Your task to perform on an android device: find which apps use the phone's location Image 0: 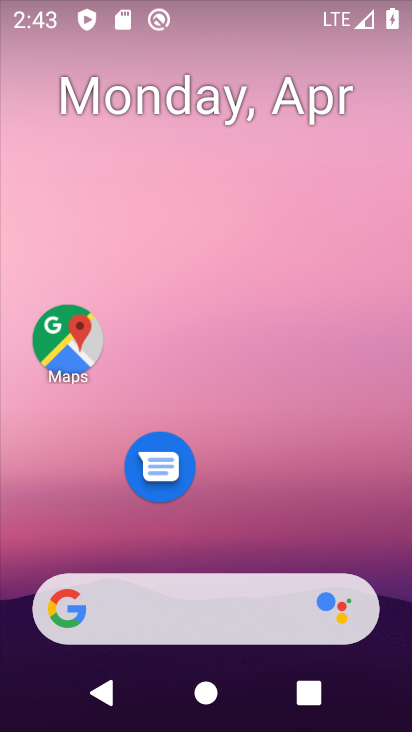
Step 0: drag from (311, 531) to (314, 51)
Your task to perform on an android device: find which apps use the phone's location Image 1: 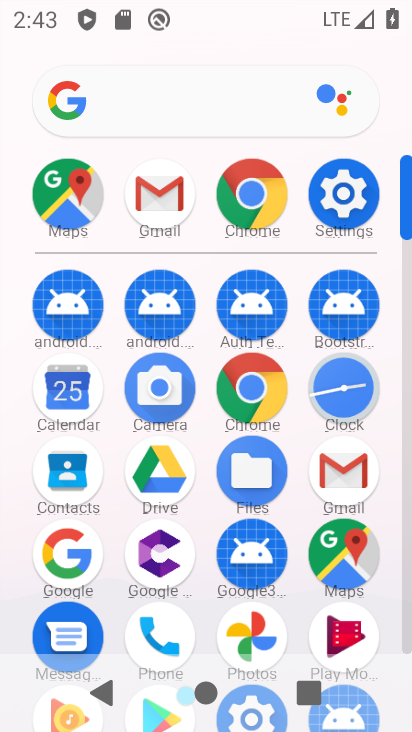
Step 1: click (339, 206)
Your task to perform on an android device: find which apps use the phone's location Image 2: 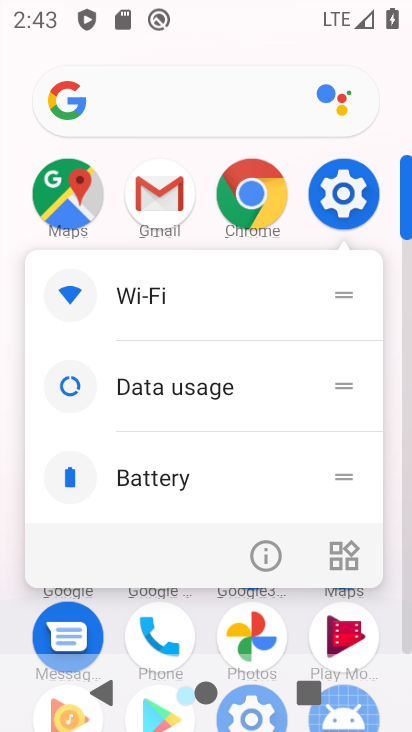
Step 2: click (340, 206)
Your task to perform on an android device: find which apps use the phone's location Image 3: 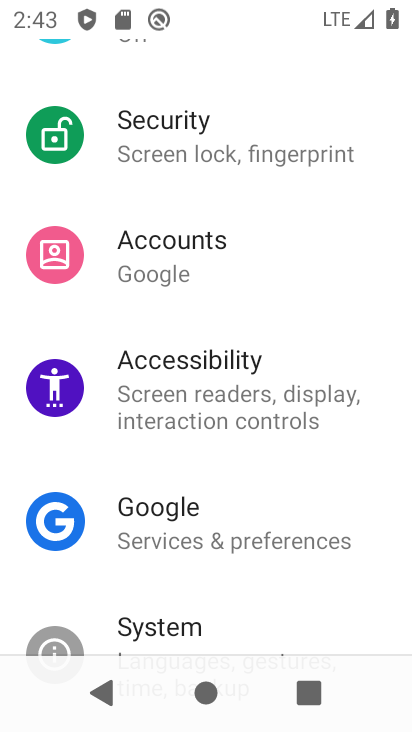
Step 3: drag from (276, 295) to (314, 500)
Your task to perform on an android device: find which apps use the phone's location Image 4: 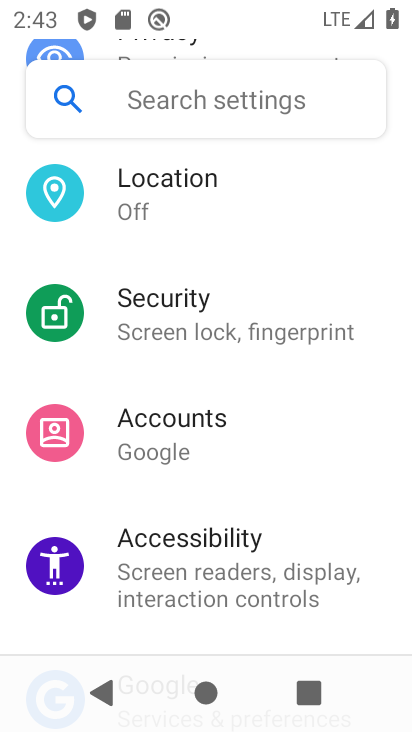
Step 4: drag from (271, 355) to (298, 499)
Your task to perform on an android device: find which apps use the phone's location Image 5: 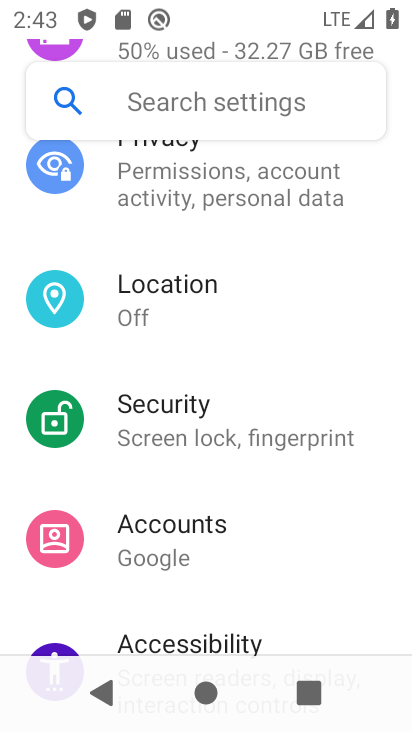
Step 5: click (239, 318)
Your task to perform on an android device: find which apps use the phone's location Image 6: 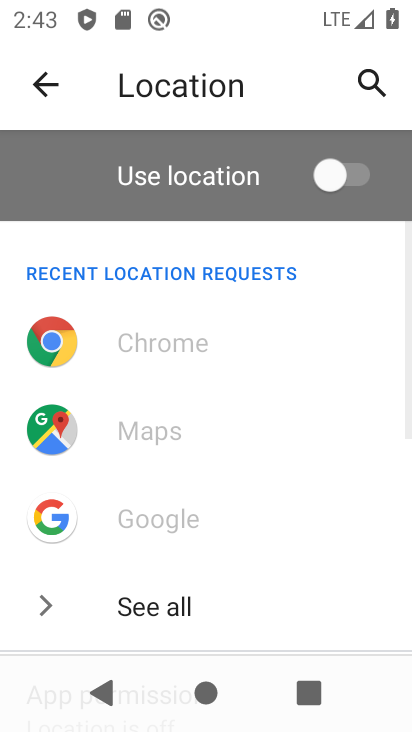
Step 6: drag from (185, 559) to (199, 227)
Your task to perform on an android device: find which apps use the phone's location Image 7: 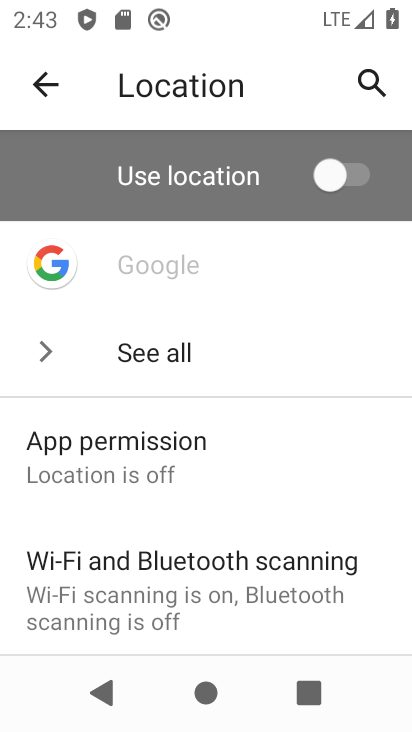
Step 7: click (137, 470)
Your task to perform on an android device: find which apps use the phone's location Image 8: 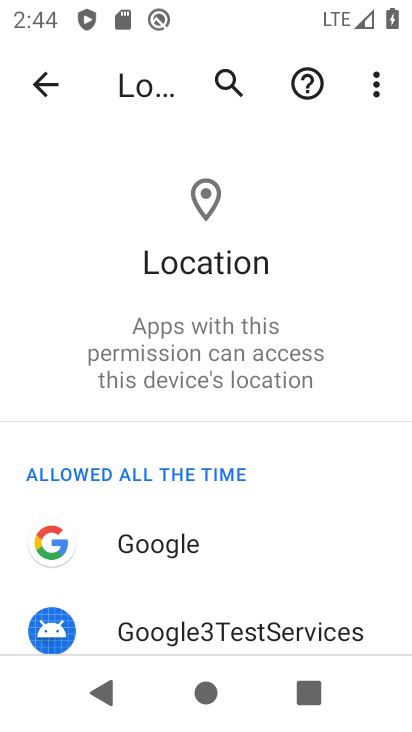
Step 8: task complete